Your task to perform on an android device: turn on sleep mode Image 0: 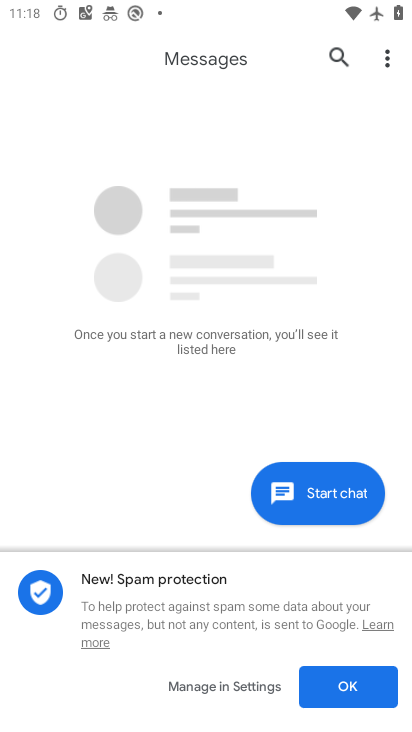
Step 0: press back button
Your task to perform on an android device: turn on sleep mode Image 1: 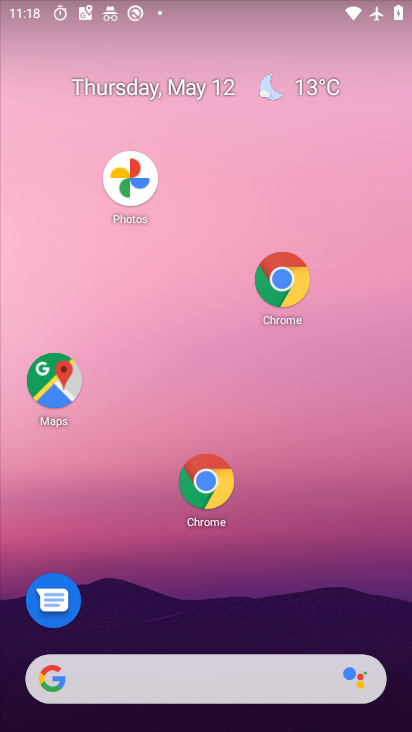
Step 1: drag from (288, 622) to (166, 171)
Your task to perform on an android device: turn on sleep mode Image 2: 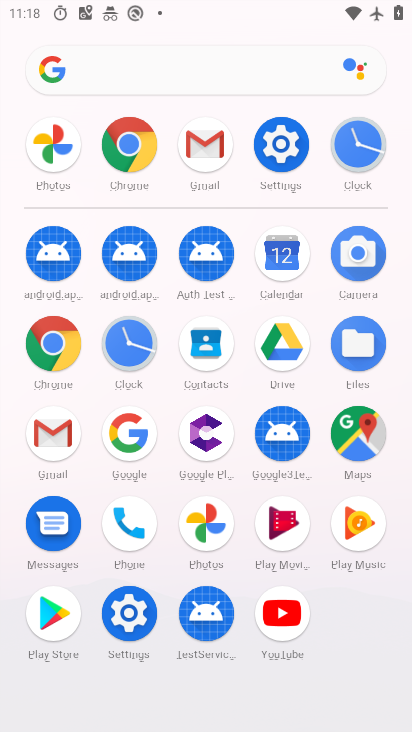
Step 2: click (272, 141)
Your task to perform on an android device: turn on sleep mode Image 3: 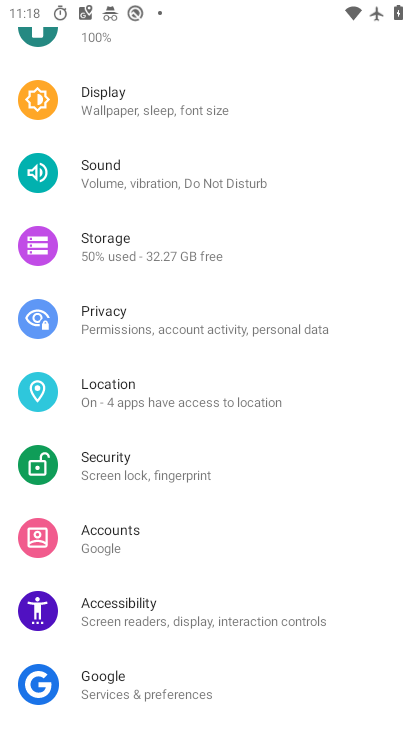
Step 3: click (90, 101)
Your task to perform on an android device: turn on sleep mode Image 4: 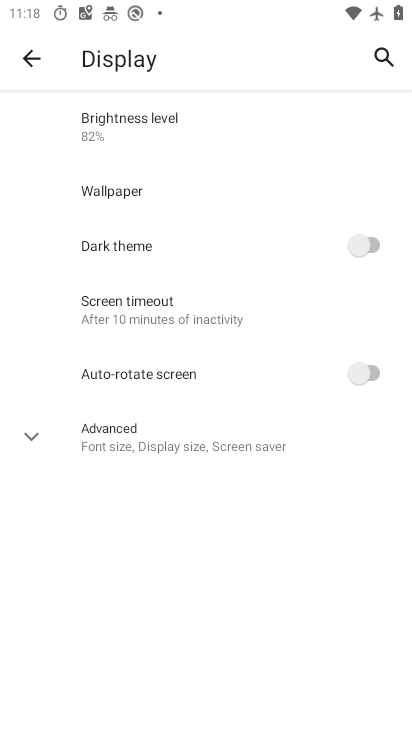
Step 4: click (139, 313)
Your task to perform on an android device: turn on sleep mode Image 5: 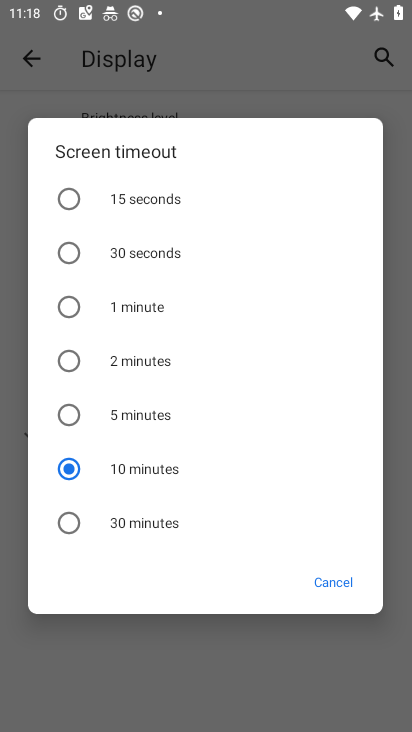
Step 5: task complete